Your task to perform on an android device: Open calendar and show me the fourth week of next month Image 0: 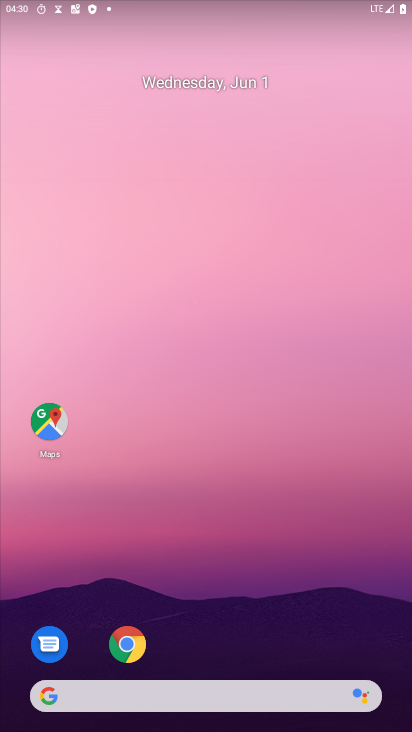
Step 0: press home button
Your task to perform on an android device: Open calendar and show me the fourth week of next month Image 1: 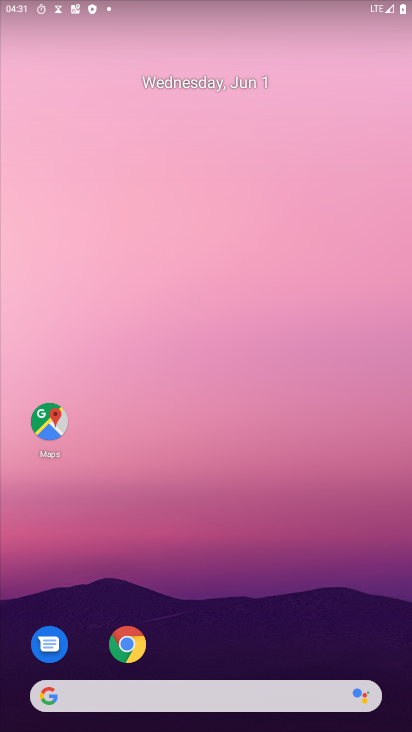
Step 1: drag from (217, 651) to (215, 146)
Your task to perform on an android device: Open calendar and show me the fourth week of next month Image 2: 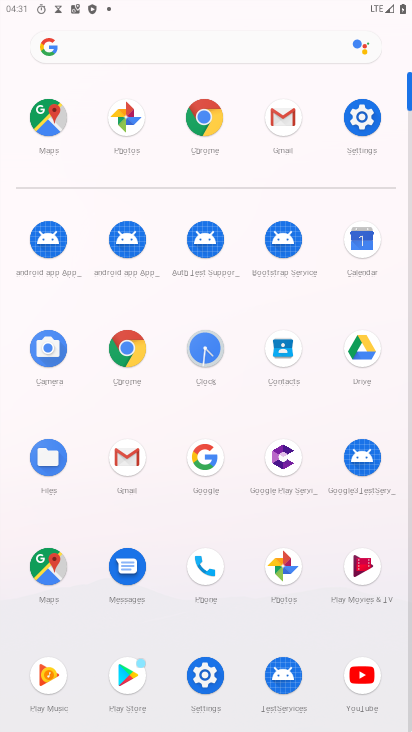
Step 2: click (364, 251)
Your task to perform on an android device: Open calendar and show me the fourth week of next month Image 3: 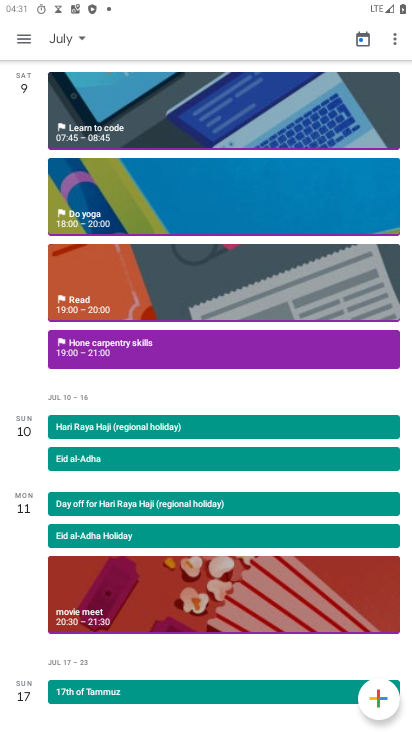
Step 3: click (16, 34)
Your task to perform on an android device: Open calendar and show me the fourth week of next month Image 4: 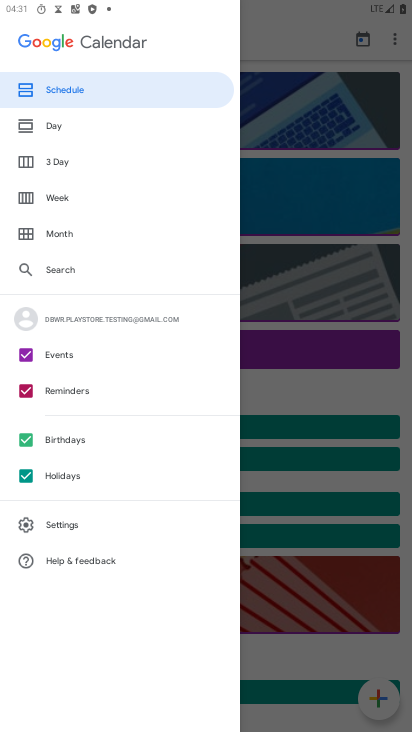
Step 4: click (52, 237)
Your task to perform on an android device: Open calendar and show me the fourth week of next month Image 5: 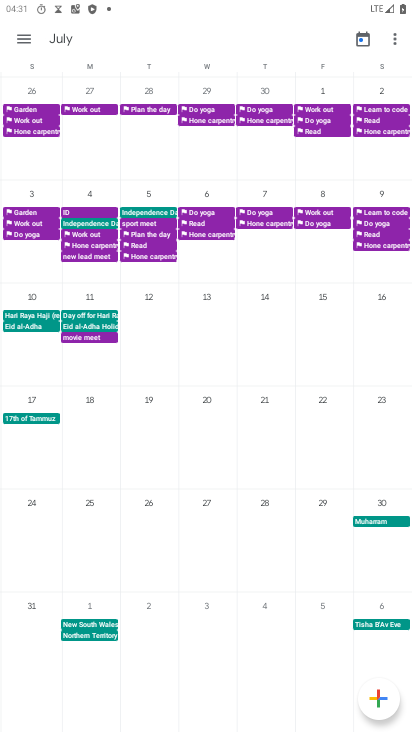
Step 5: click (34, 522)
Your task to perform on an android device: Open calendar and show me the fourth week of next month Image 6: 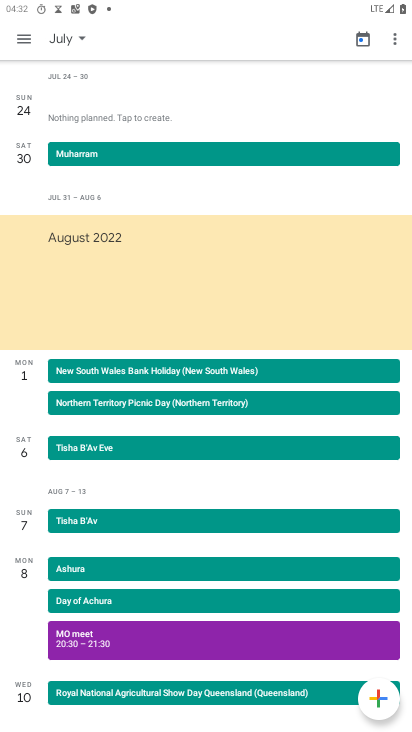
Step 6: task complete